Your task to perform on an android device: Go to settings Image 0: 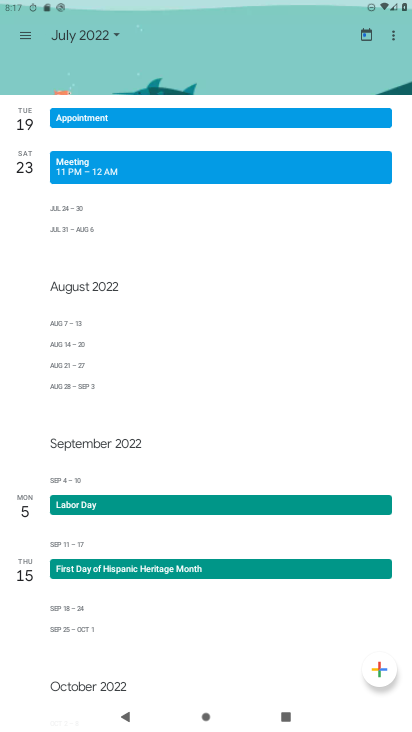
Step 0: press home button
Your task to perform on an android device: Go to settings Image 1: 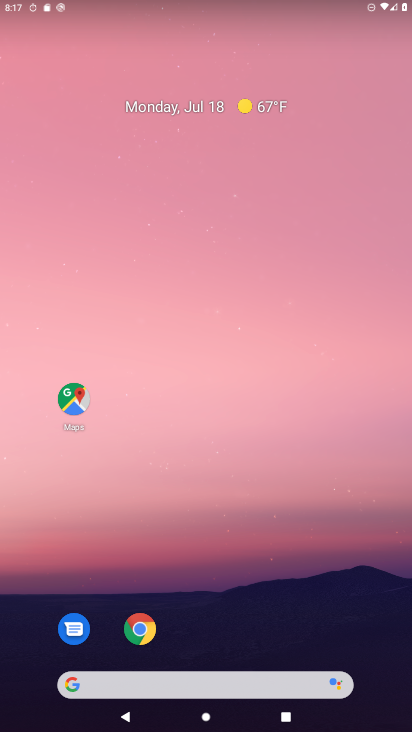
Step 1: drag from (219, 665) to (176, 133)
Your task to perform on an android device: Go to settings Image 2: 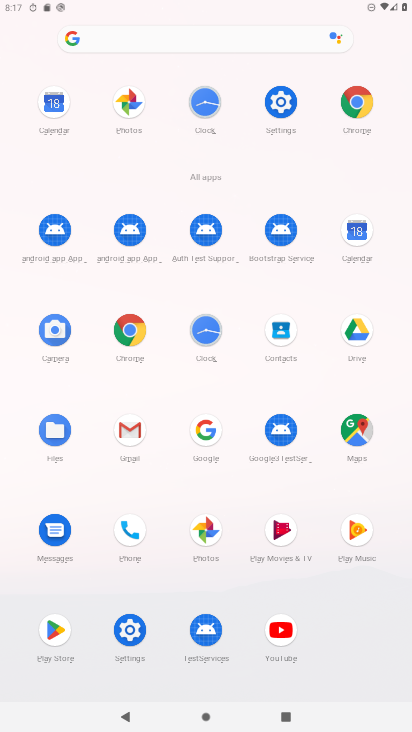
Step 2: click (286, 108)
Your task to perform on an android device: Go to settings Image 3: 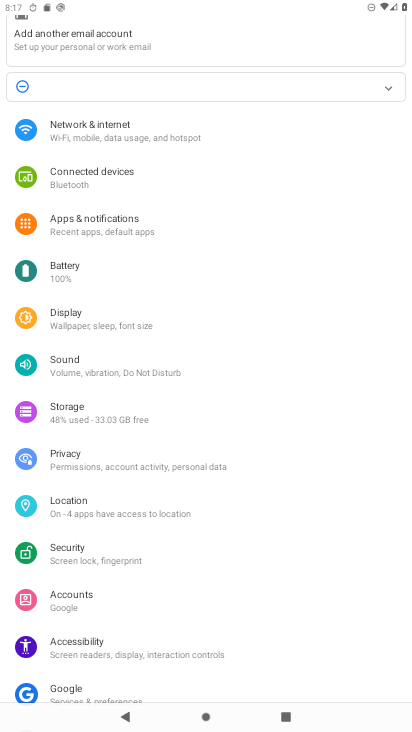
Step 3: task complete